Your task to perform on an android device: check data usage Image 0: 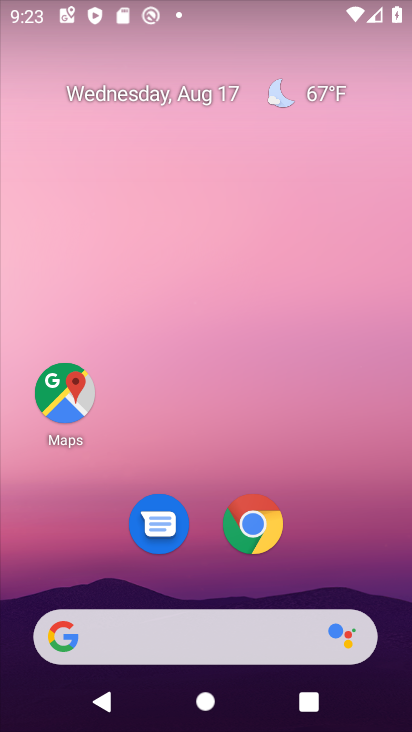
Step 0: drag from (342, 464) to (334, 16)
Your task to perform on an android device: check data usage Image 1: 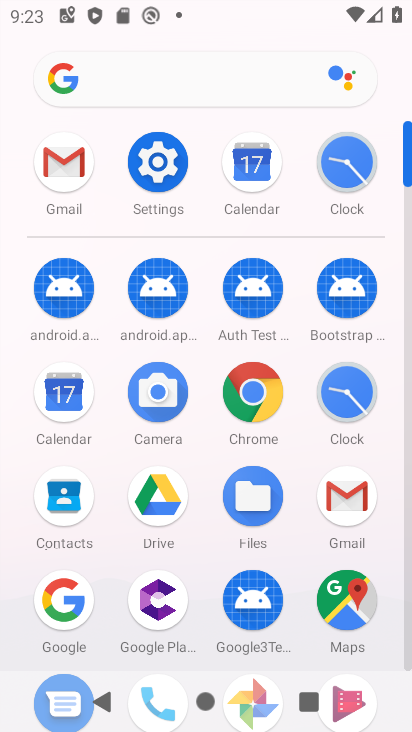
Step 1: click (157, 160)
Your task to perform on an android device: check data usage Image 2: 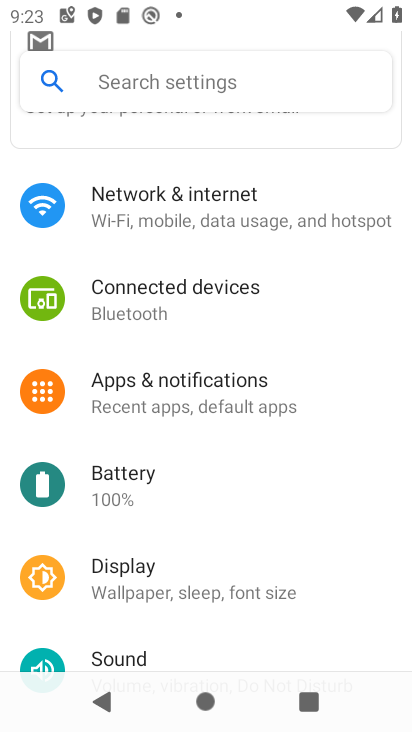
Step 2: click (216, 214)
Your task to perform on an android device: check data usage Image 3: 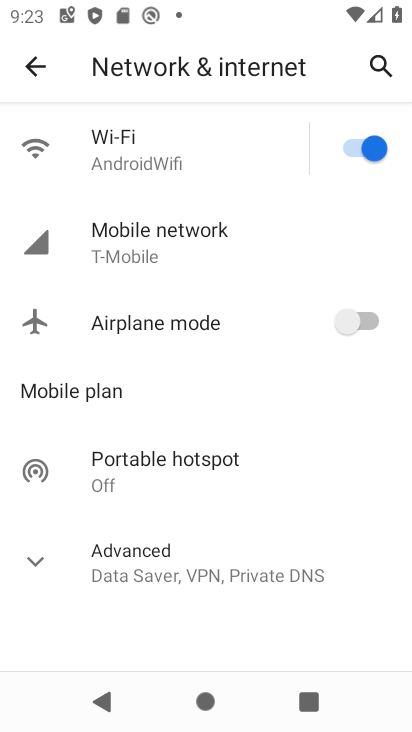
Step 3: click (215, 227)
Your task to perform on an android device: check data usage Image 4: 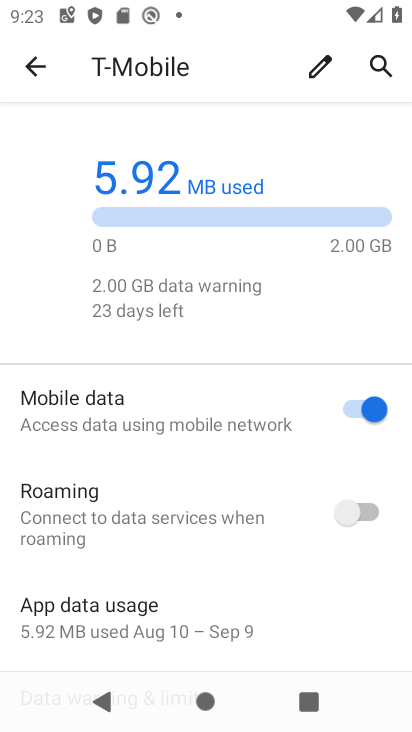
Step 4: task complete